Your task to perform on an android device: allow cookies in the chrome app Image 0: 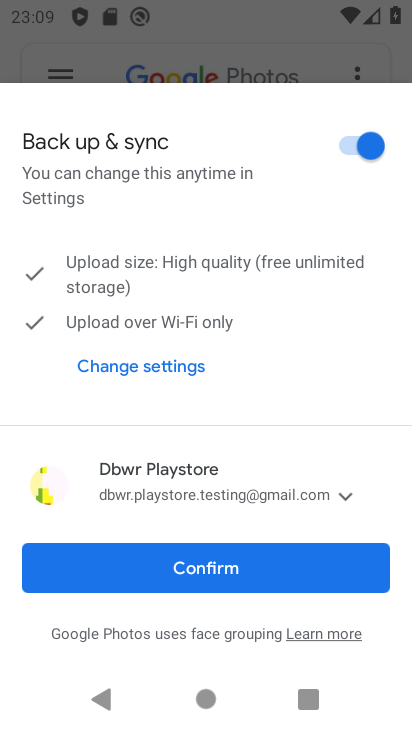
Step 0: press home button
Your task to perform on an android device: allow cookies in the chrome app Image 1: 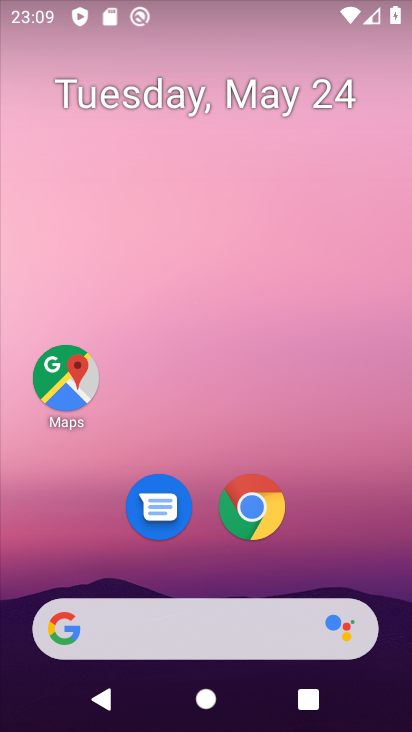
Step 1: drag from (285, 562) to (291, 0)
Your task to perform on an android device: allow cookies in the chrome app Image 2: 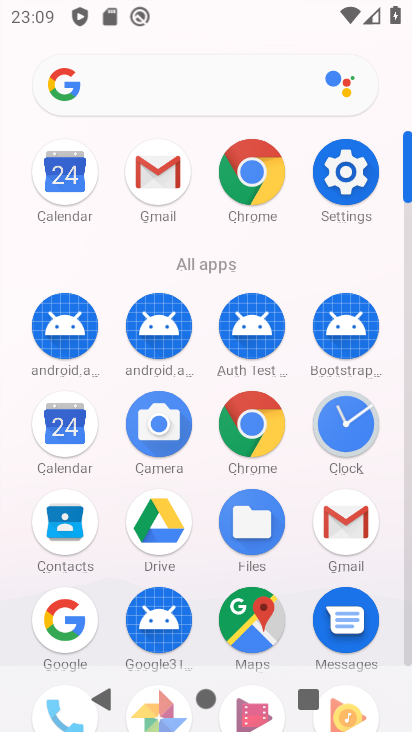
Step 2: click (254, 418)
Your task to perform on an android device: allow cookies in the chrome app Image 3: 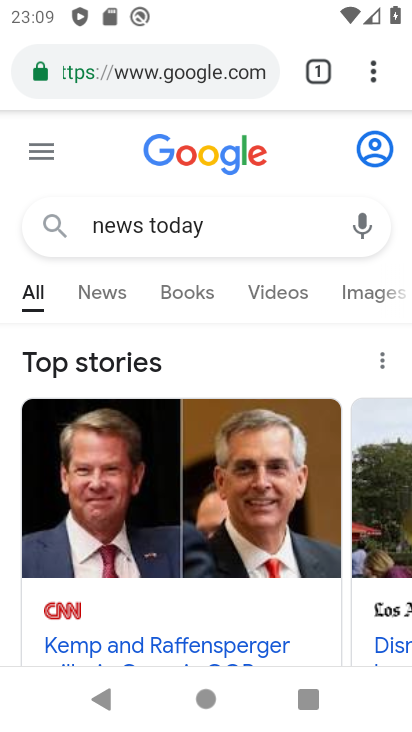
Step 3: drag from (375, 75) to (122, 485)
Your task to perform on an android device: allow cookies in the chrome app Image 4: 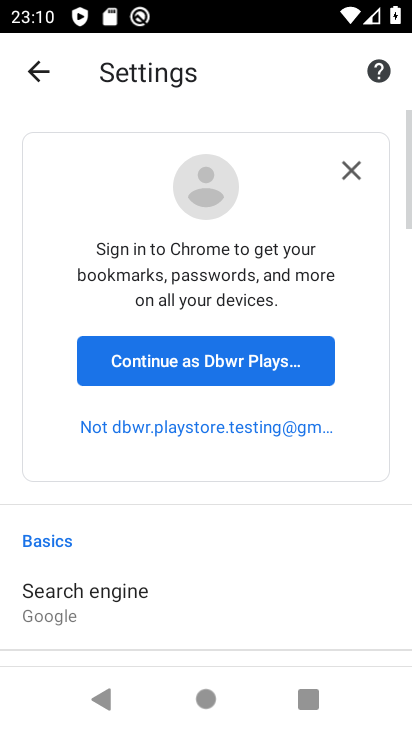
Step 4: drag from (147, 483) to (220, 9)
Your task to perform on an android device: allow cookies in the chrome app Image 5: 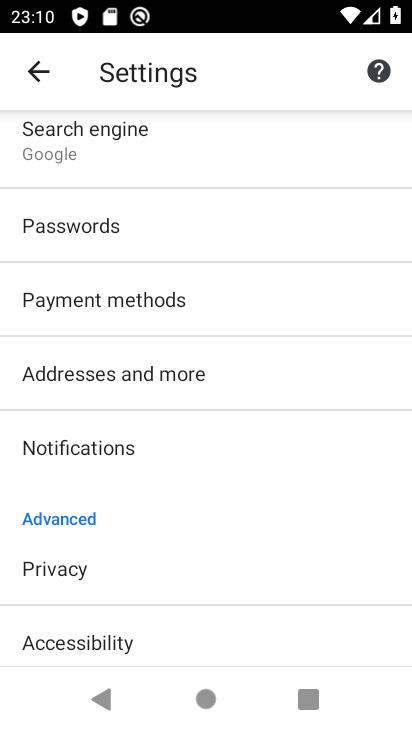
Step 5: drag from (189, 627) to (262, 248)
Your task to perform on an android device: allow cookies in the chrome app Image 6: 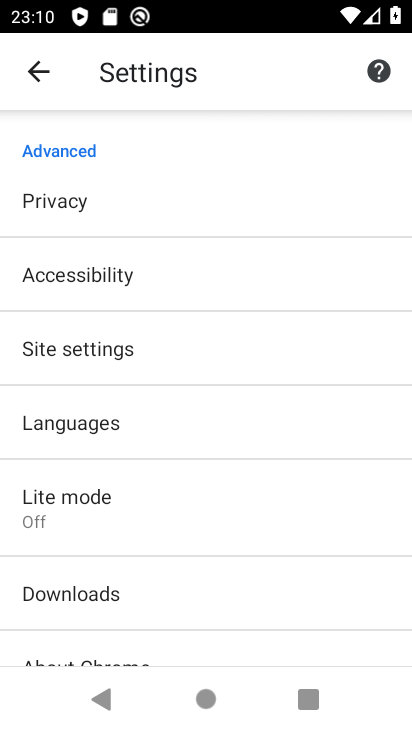
Step 6: click (146, 368)
Your task to perform on an android device: allow cookies in the chrome app Image 7: 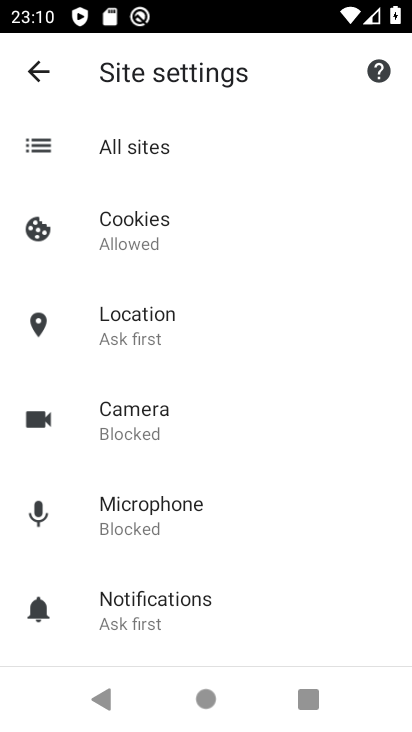
Step 7: click (135, 209)
Your task to perform on an android device: allow cookies in the chrome app Image 8: 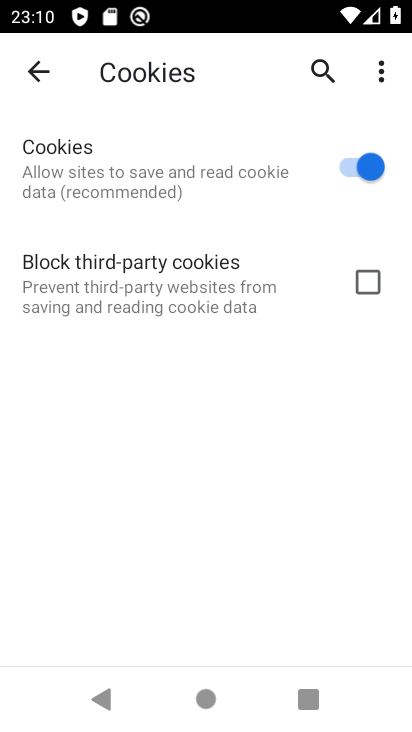
Step 8: task complete